Your task to perform on an android device: check out phone information Image 0: 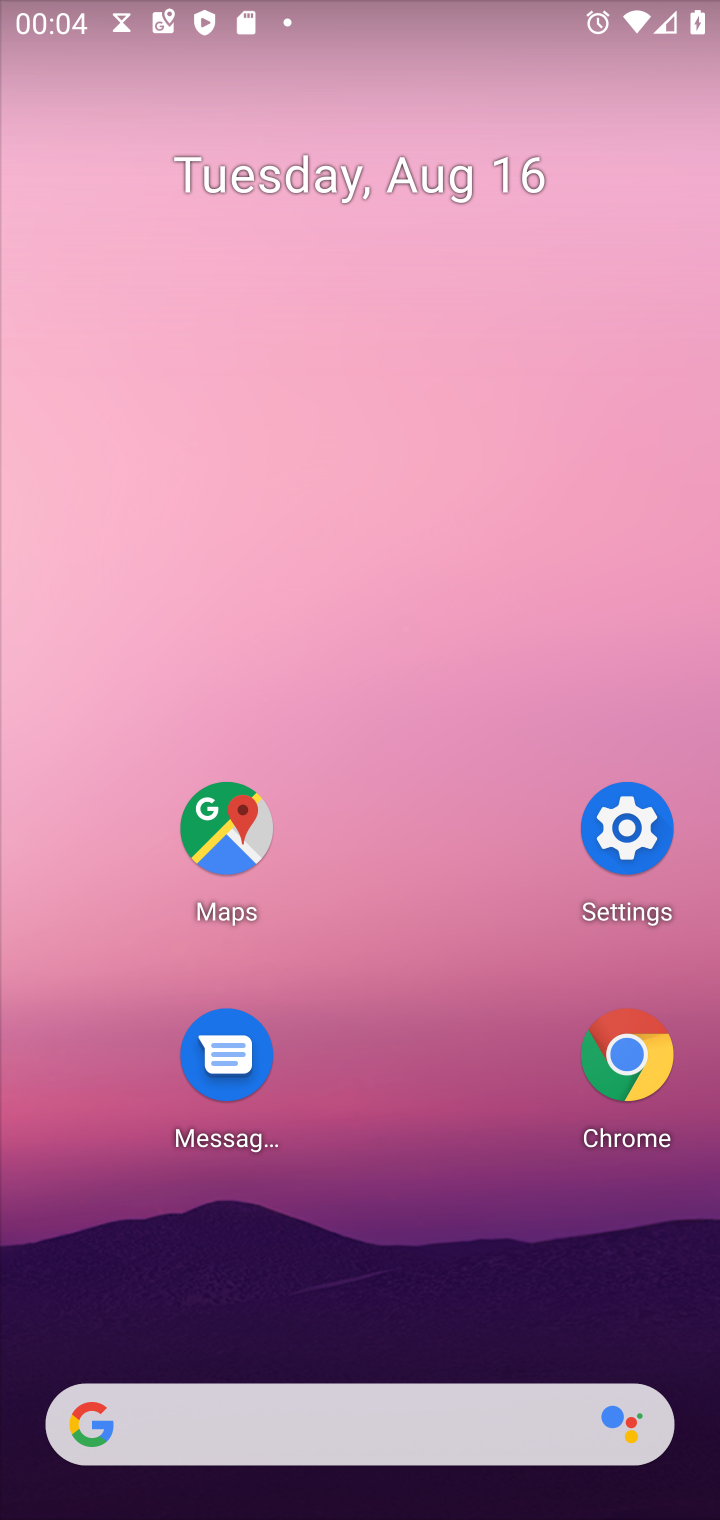
Step 0: press home button
Your task to perform on an android device: check out phone information Image 1: 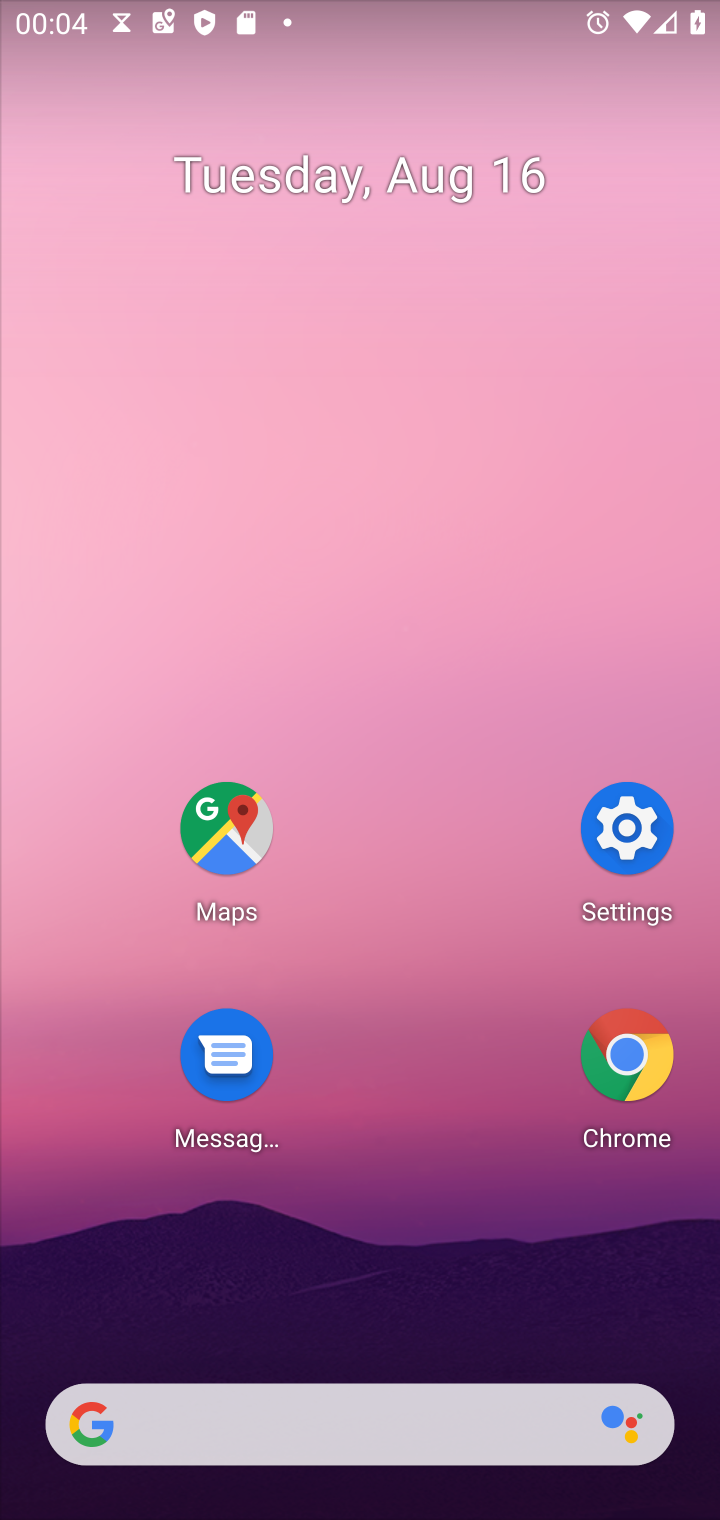
Step 1: click (611, 805)
Your task to perform on an android device: check out phone information Image 2: 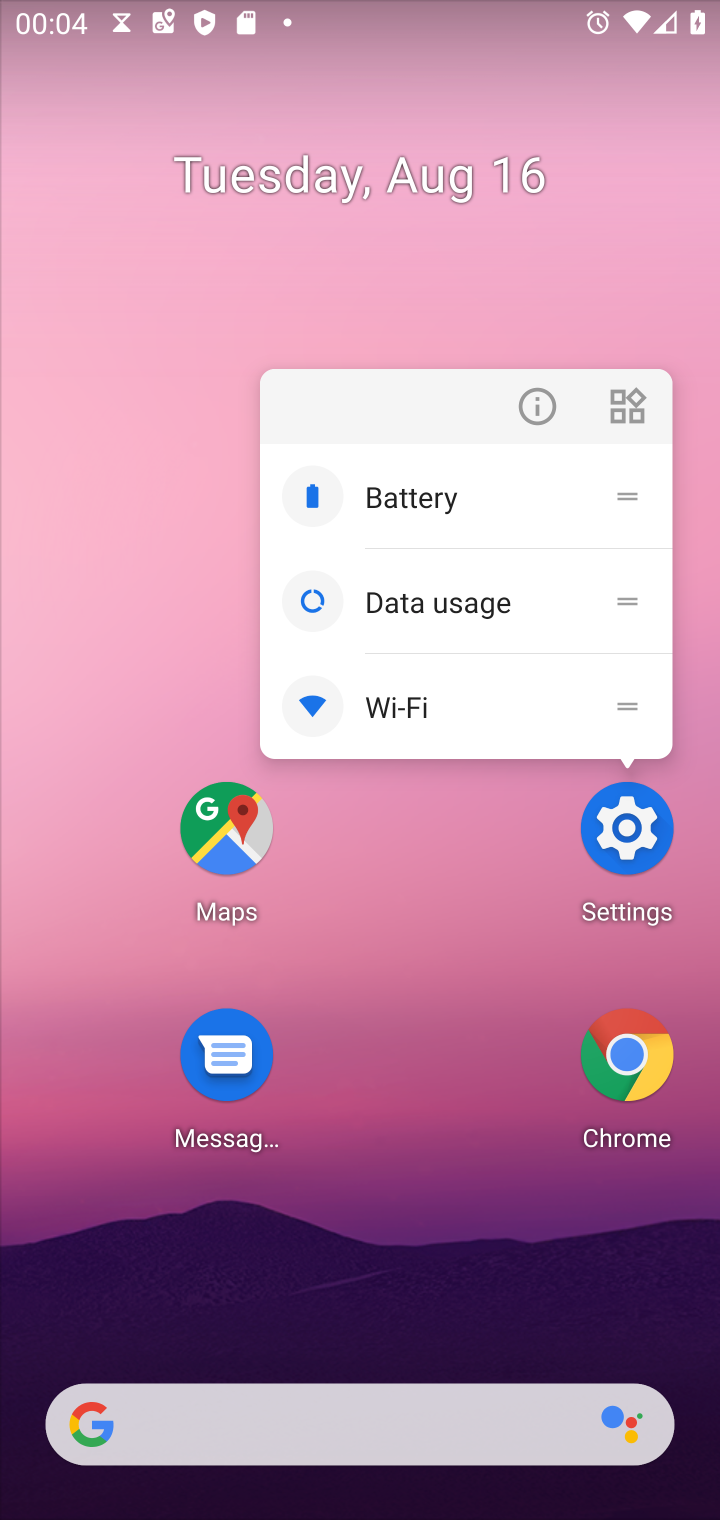
Step 2: click (611, 824)
Your task to perform on an android device: check out phone information Image 3: 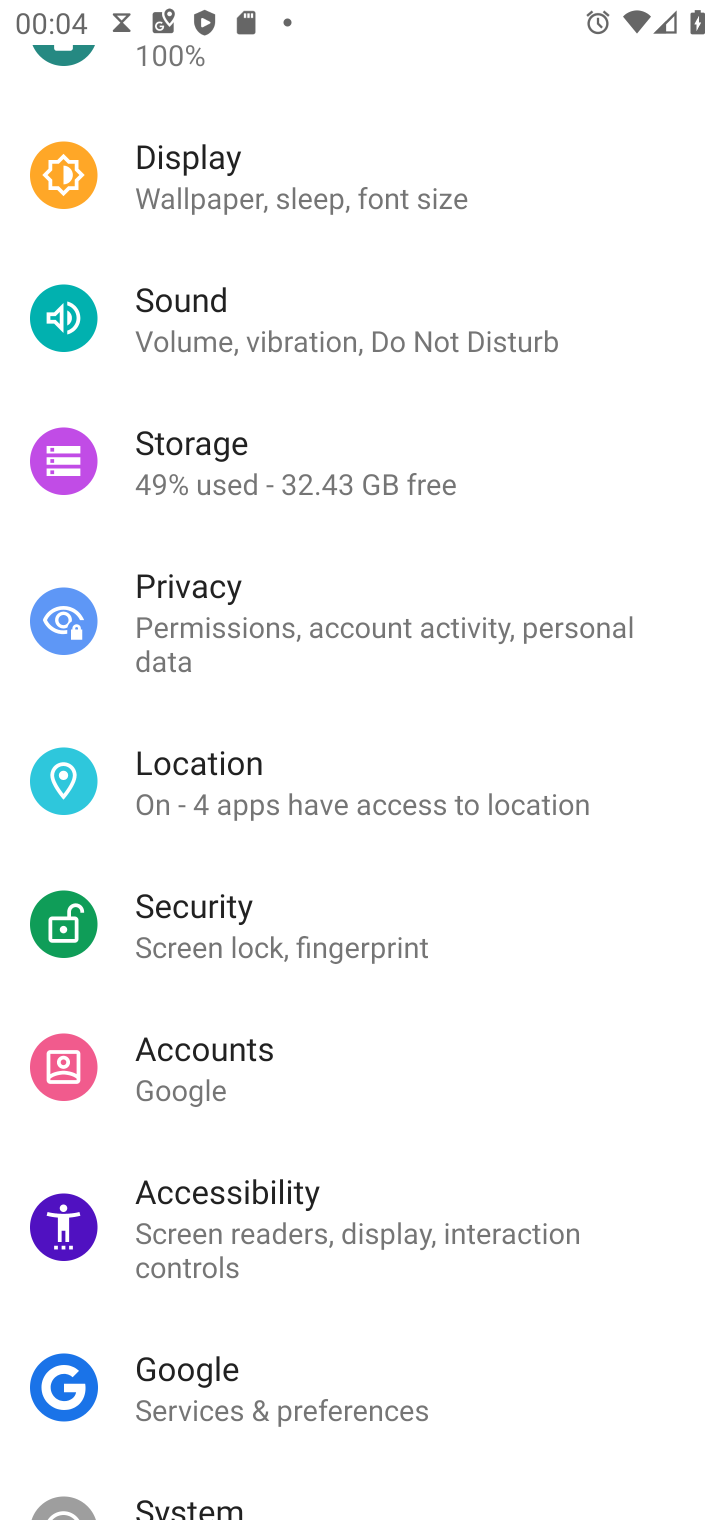
Step 3: drag from (323, 1374) to (579, 296)
Your task to perform on an android device: check out phone information Image 4: 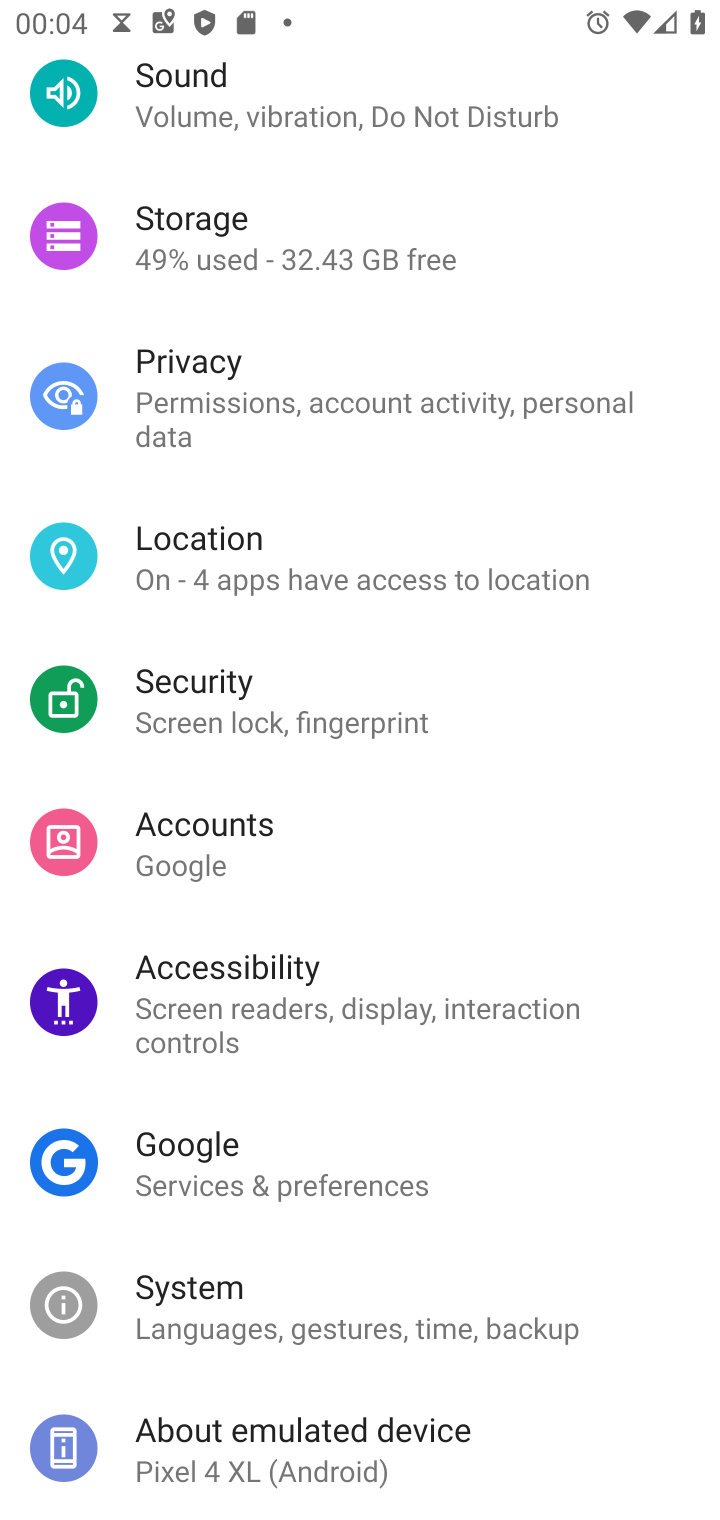
Step 4: drag from (517, 1235) to (639, 283)
Your task to perform on an android device: check out phone information Image 5: 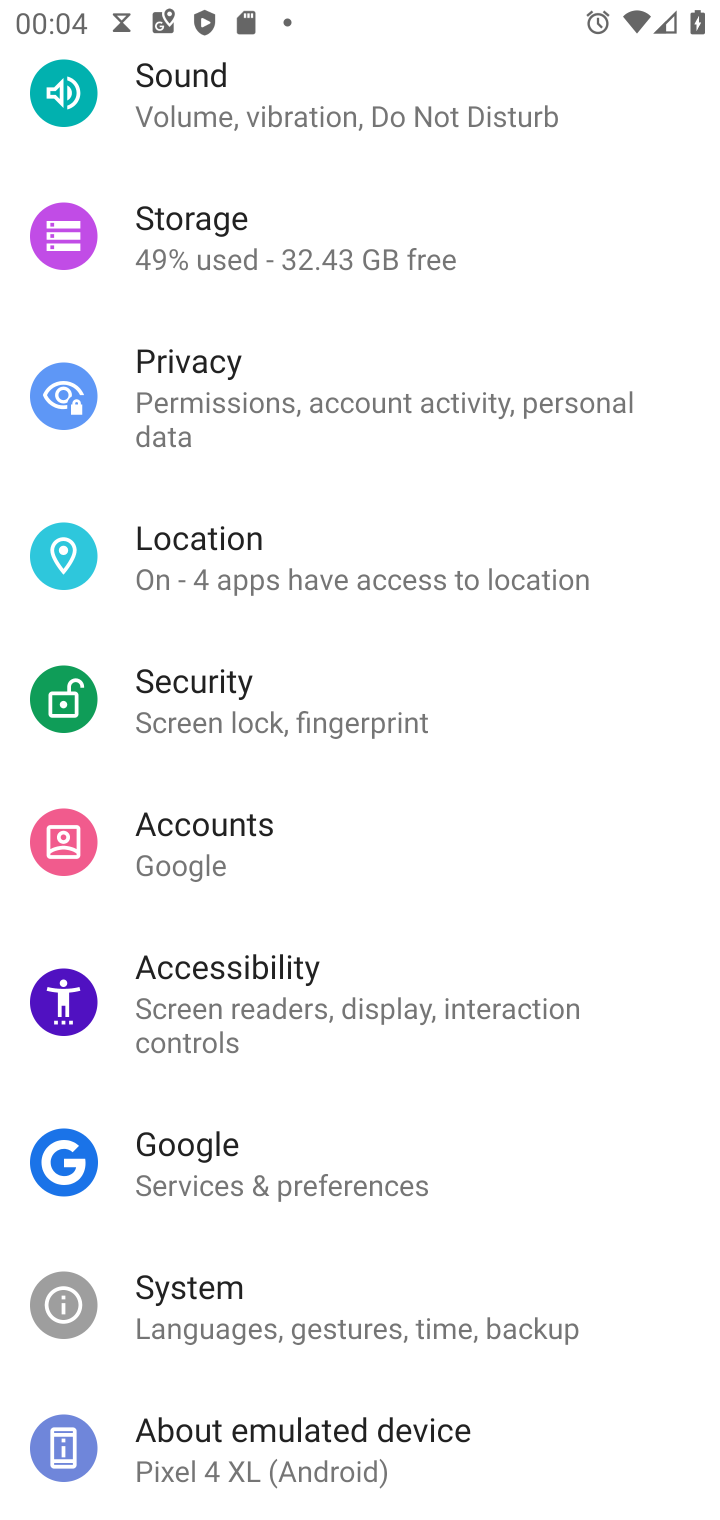
Step 5: click (331, 1442)
Your task to perform on an android device: check out phone information Image 6: 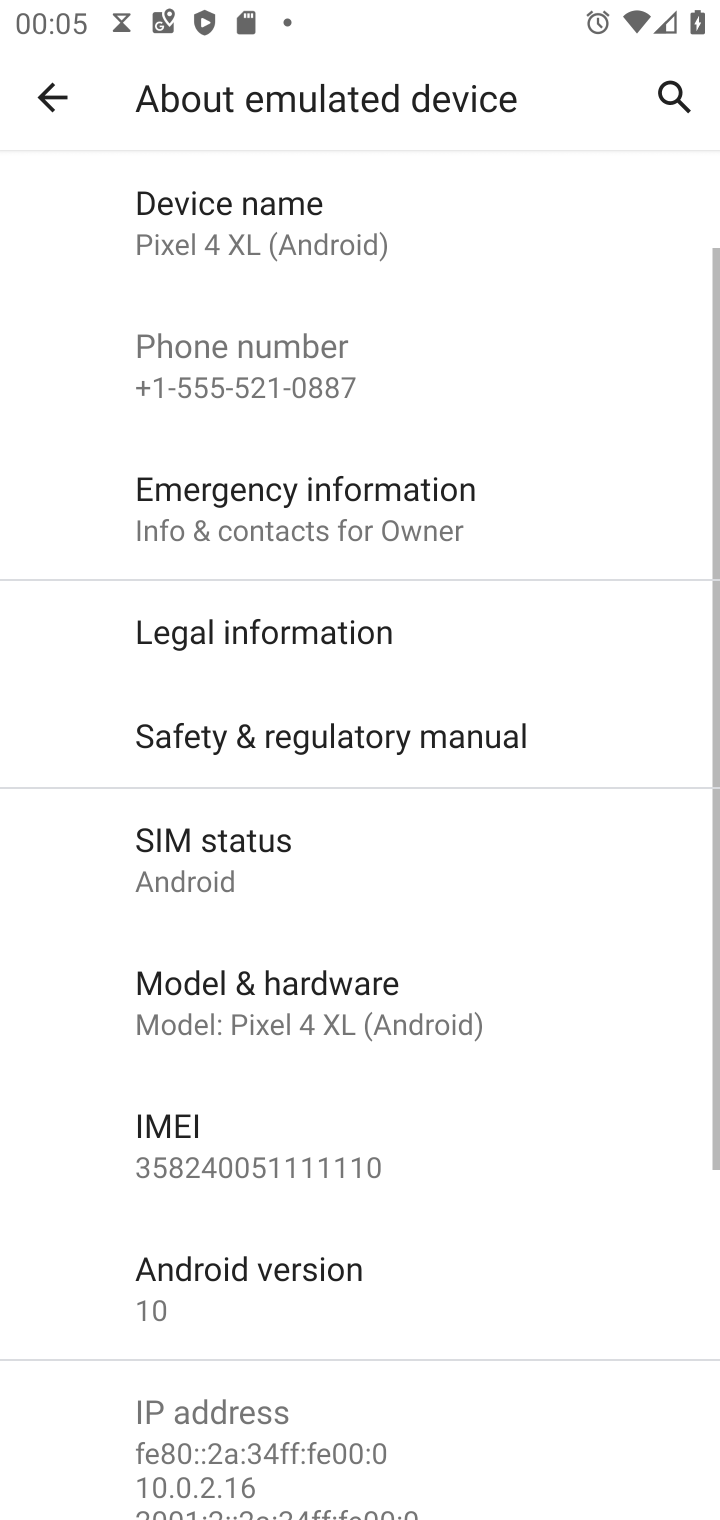
Step 6: task complete